Your task to perform on an android device: manage bookmarks in the chrome app Image 0: 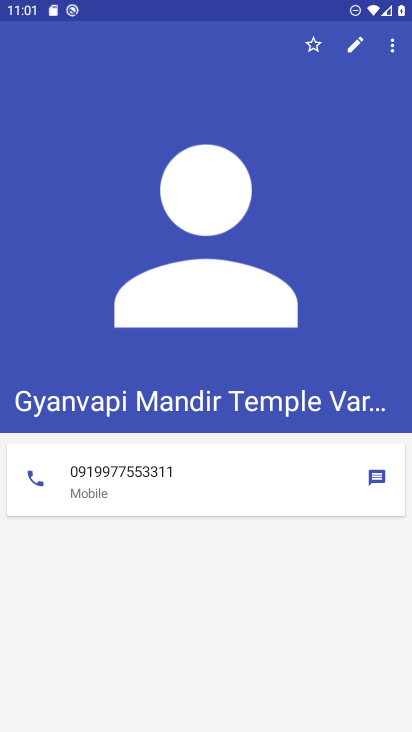
Step 0: press home button
Your task to perform on an android device: manage bookmarks in the chrome app Image 1: 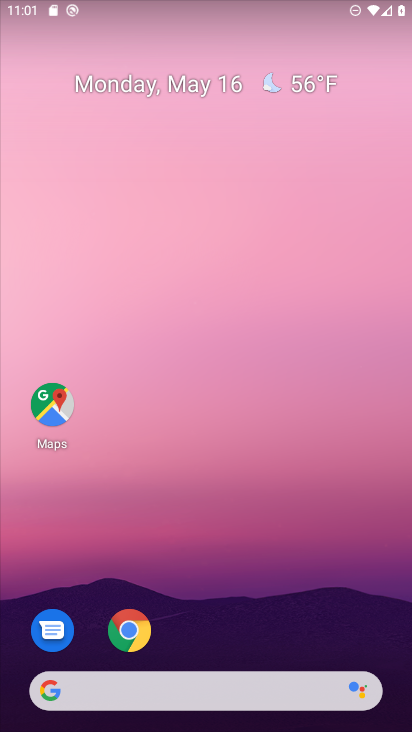
Step 1: click (138, 622)
Your task to perform on an android device: manage bookmarks in the chrome app Image 2: 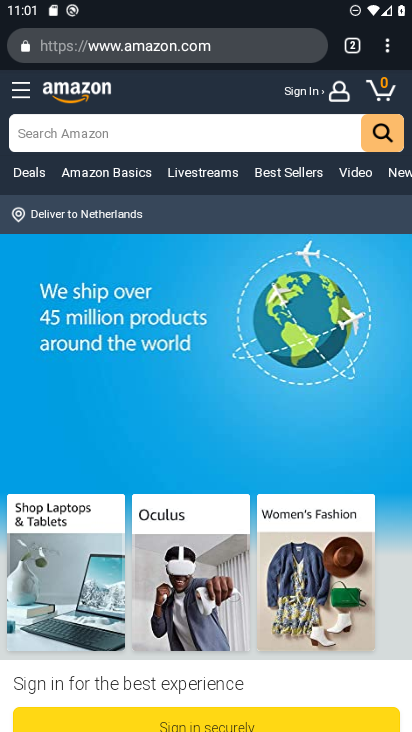
Step 2: click (379, 44)
Your task to perform on an android device: manage bookmarks in the chrome app Image 3: 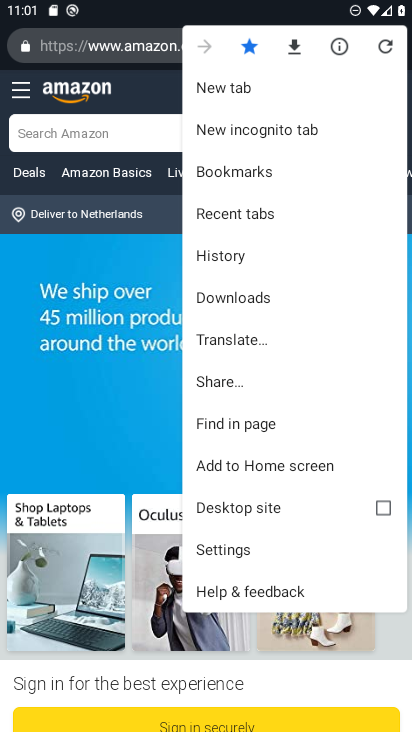
Step 3: click (283, 163)
Your task to perform on an android device: manage bookmarks in the chrome app Image 4: 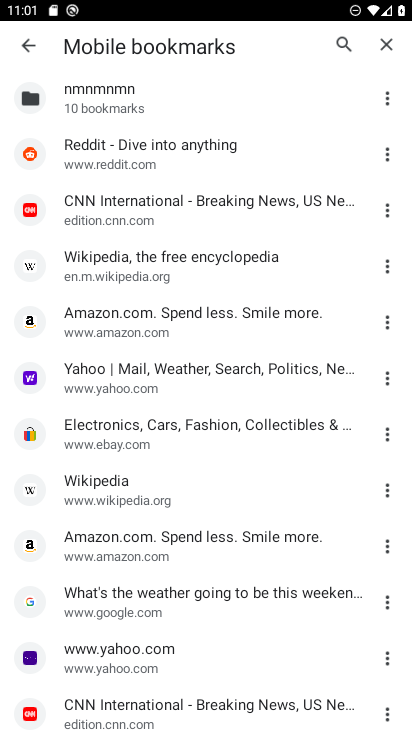
Step 4: click (389, 267)
Your task to perform on an android device: manage bookmarks in the chrome app Image 5: 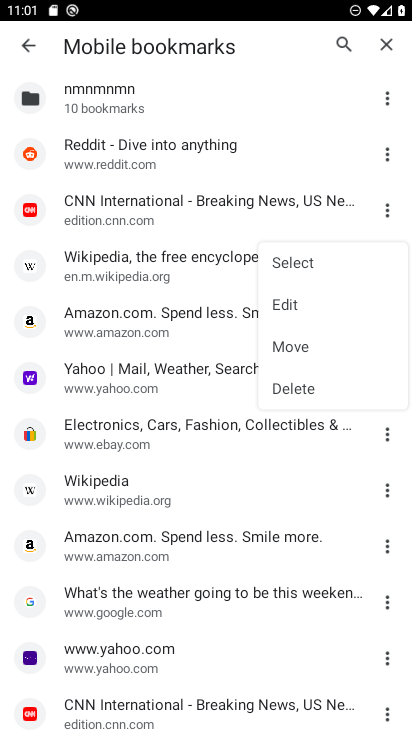
Step 5: click (315, 305)
Your task to perform on an android device: manage bookmarks in the chrome app Image 6: 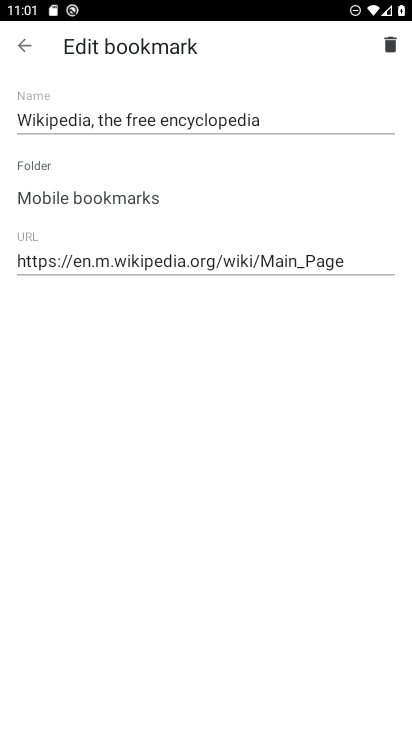
Step 6: task complete